Your task to perform on an android device: open app "Google Chat" Image 0: 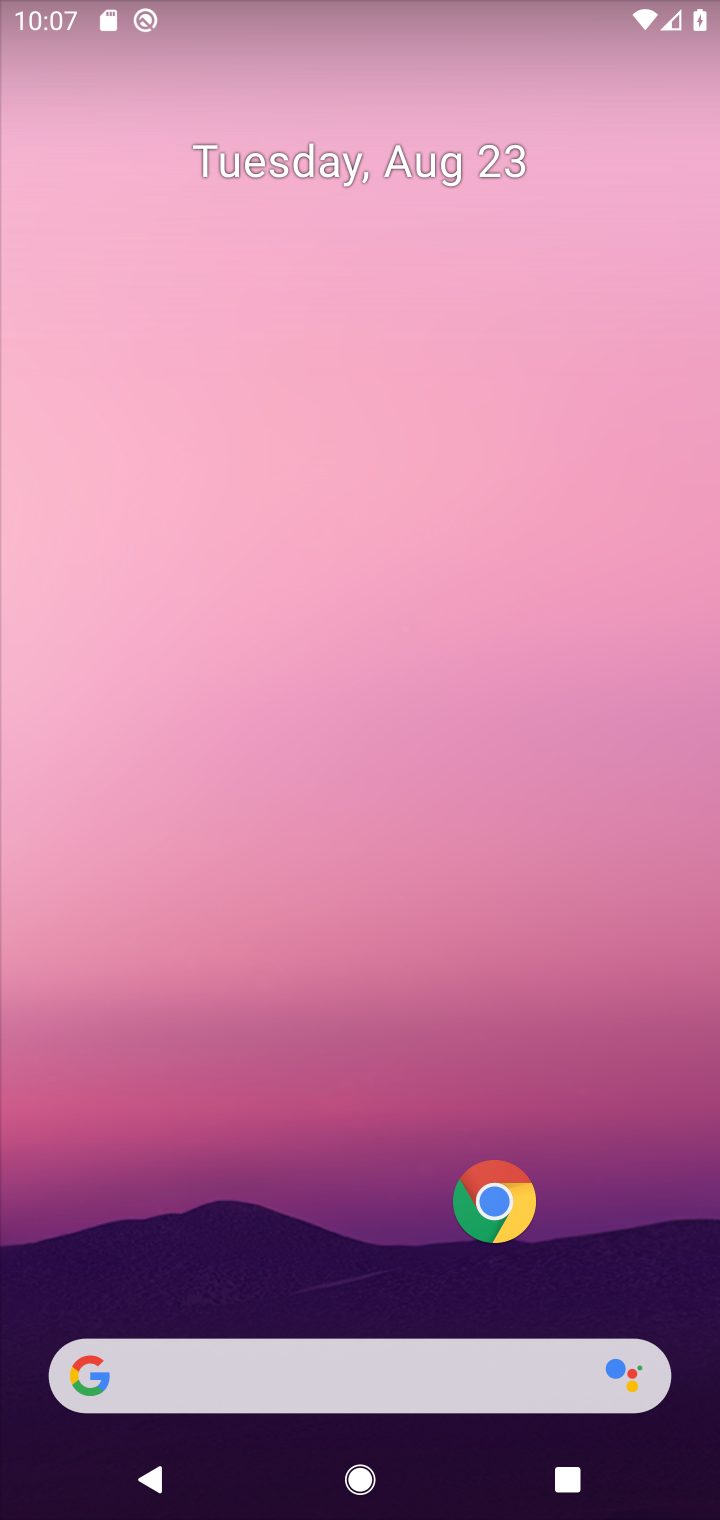
Step 0: drag from (211, 1181) to (314, 408)
Your task to perform on an android device: open app "Google Chat" Image 1: 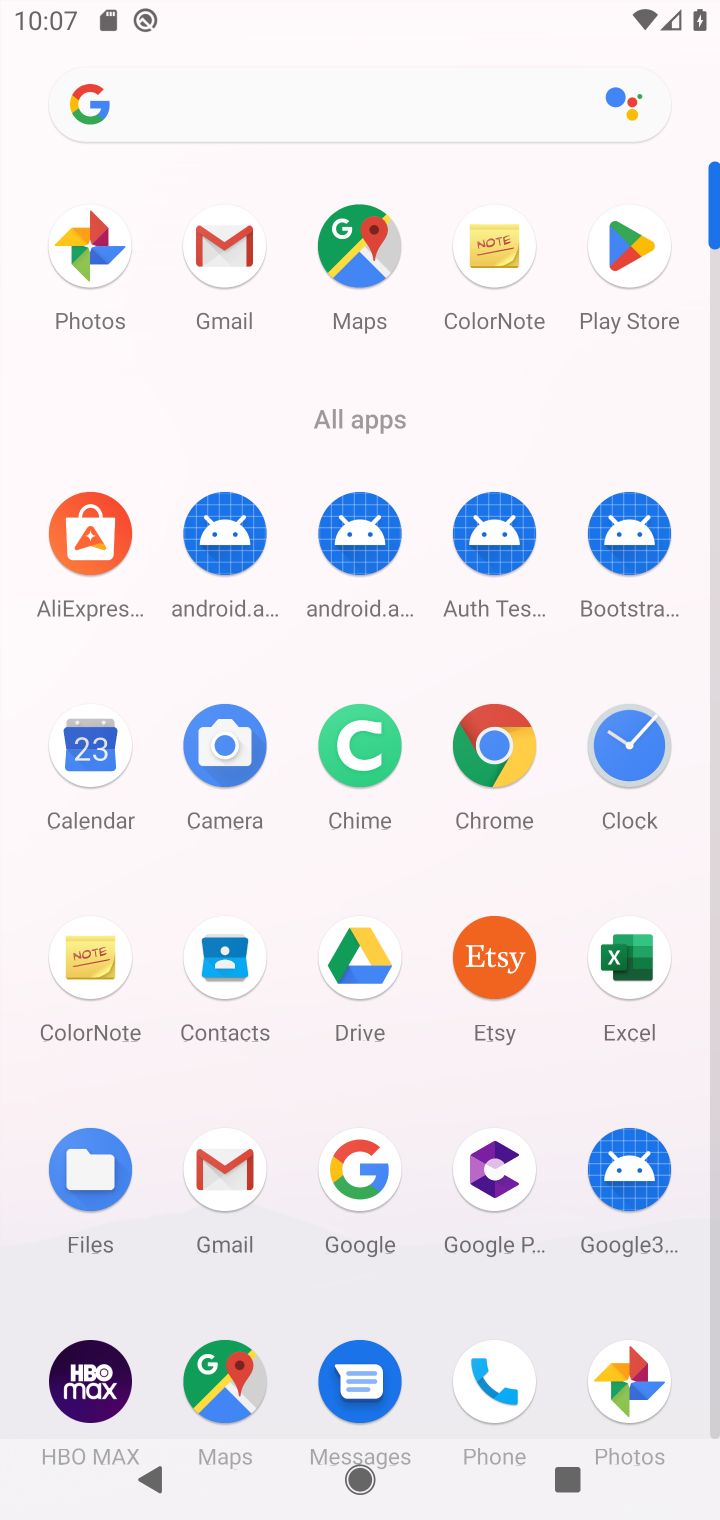
Step 1: click (608, 244)
Your task to perform on an android device: open app "Google Chat" Image 2: 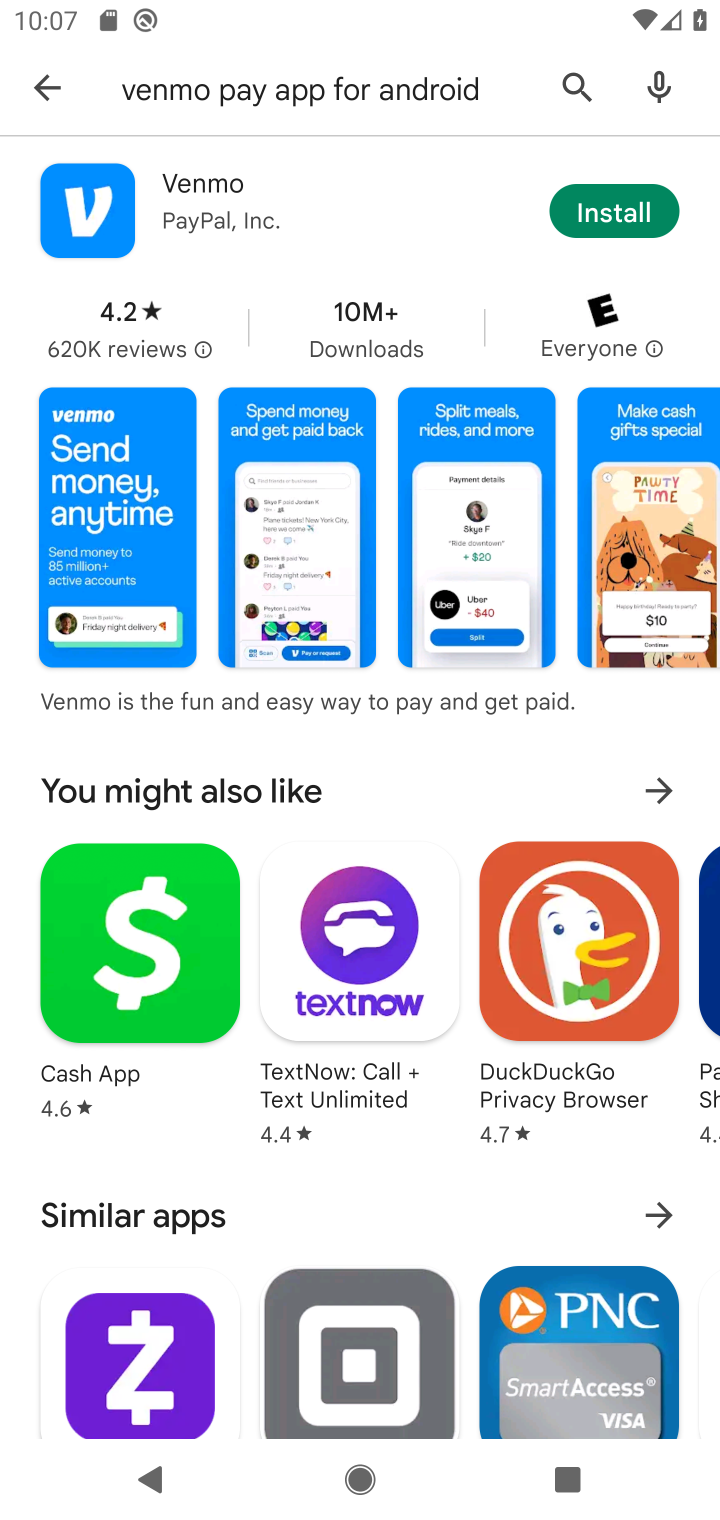
Step 2: click (33, 94)
Your task to perform on an android device: open app "Google Chat" Image 3: 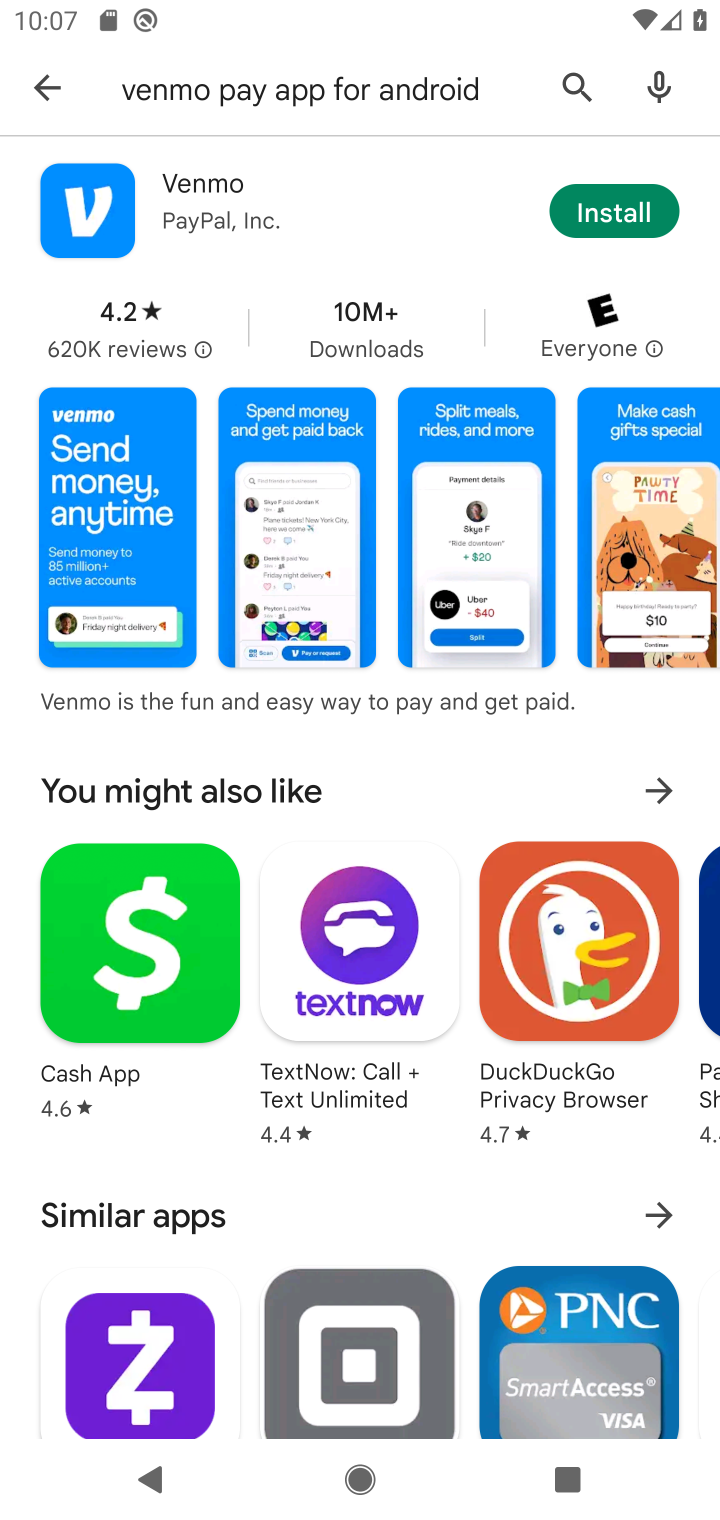
Step 3: click (75, 86)
Your task to perform on an android device: open app "Google Chat" Image 4: 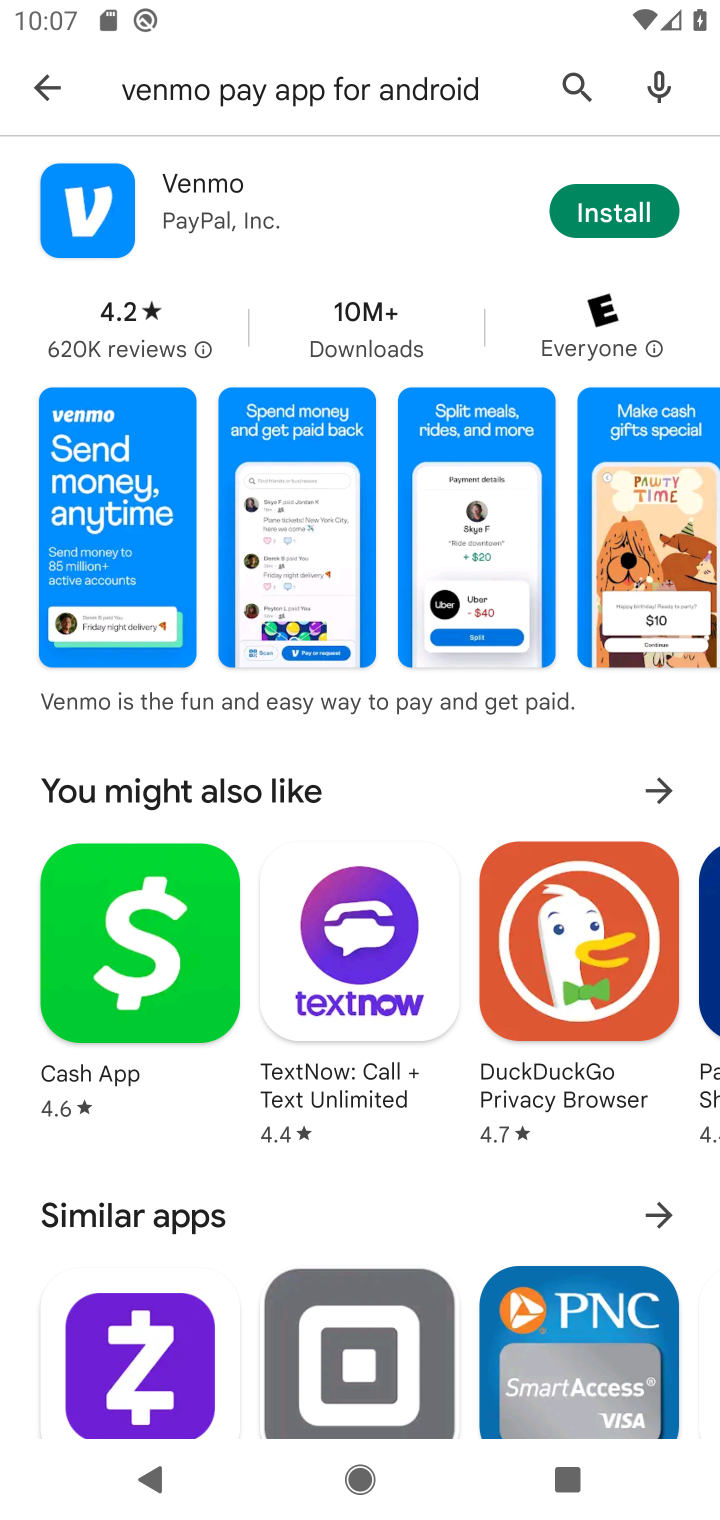
Step 4: click (75, 86)
Your task to perform on an android device: open app "Google Chat" Image 5: 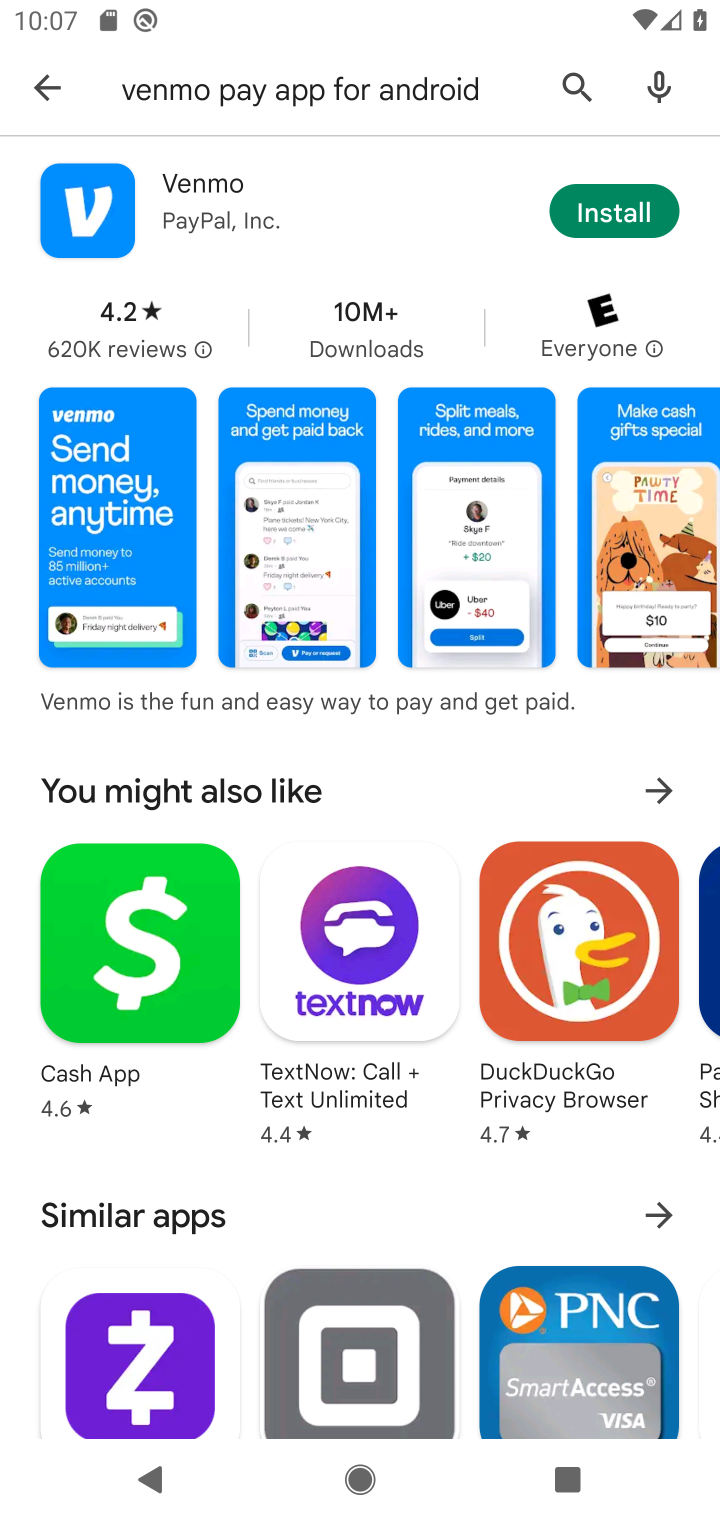
Step 5: click (586, 64)
Your task to perform on an android device: open app "Google Chat" Image 6: 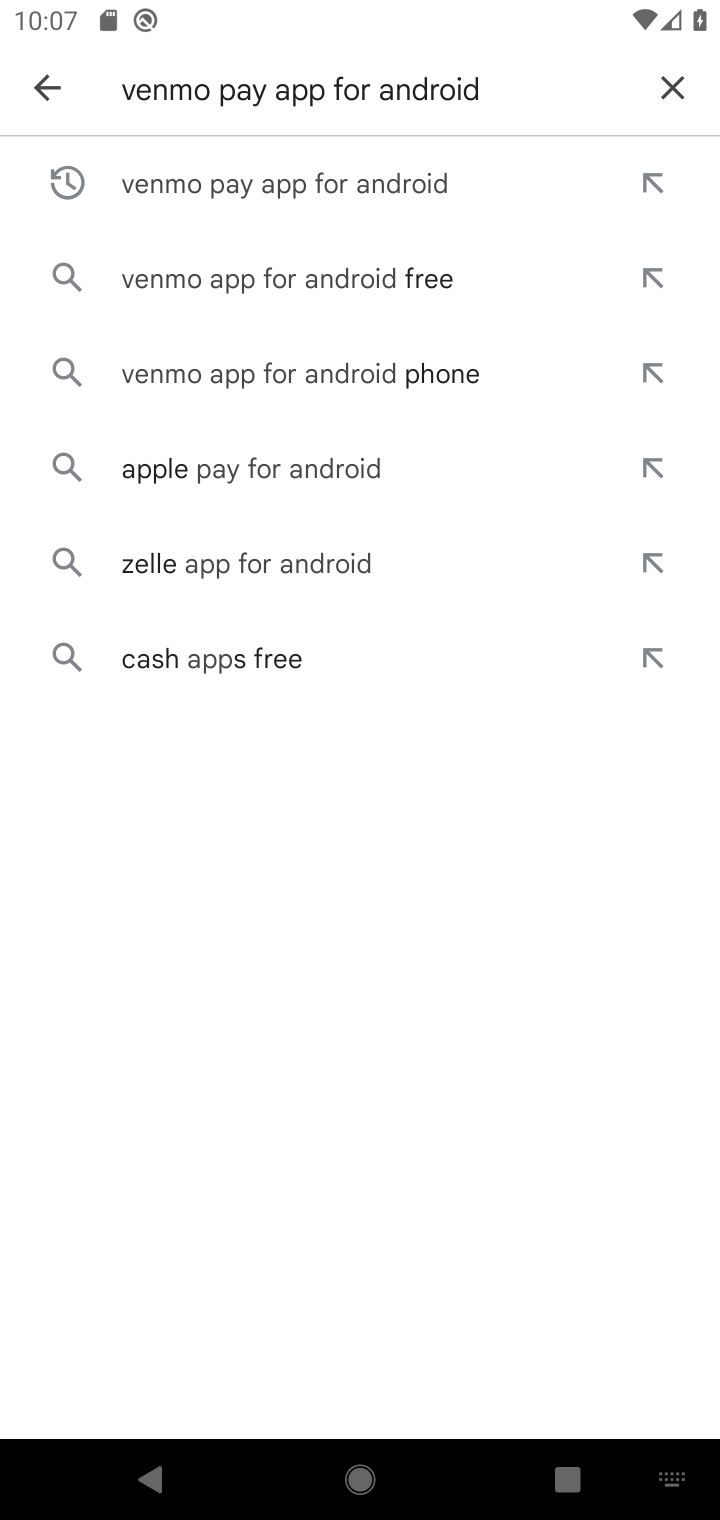
Step 6: click (690, 82)
Your task to perform on an android device: open app "Google Chat" Image 7: 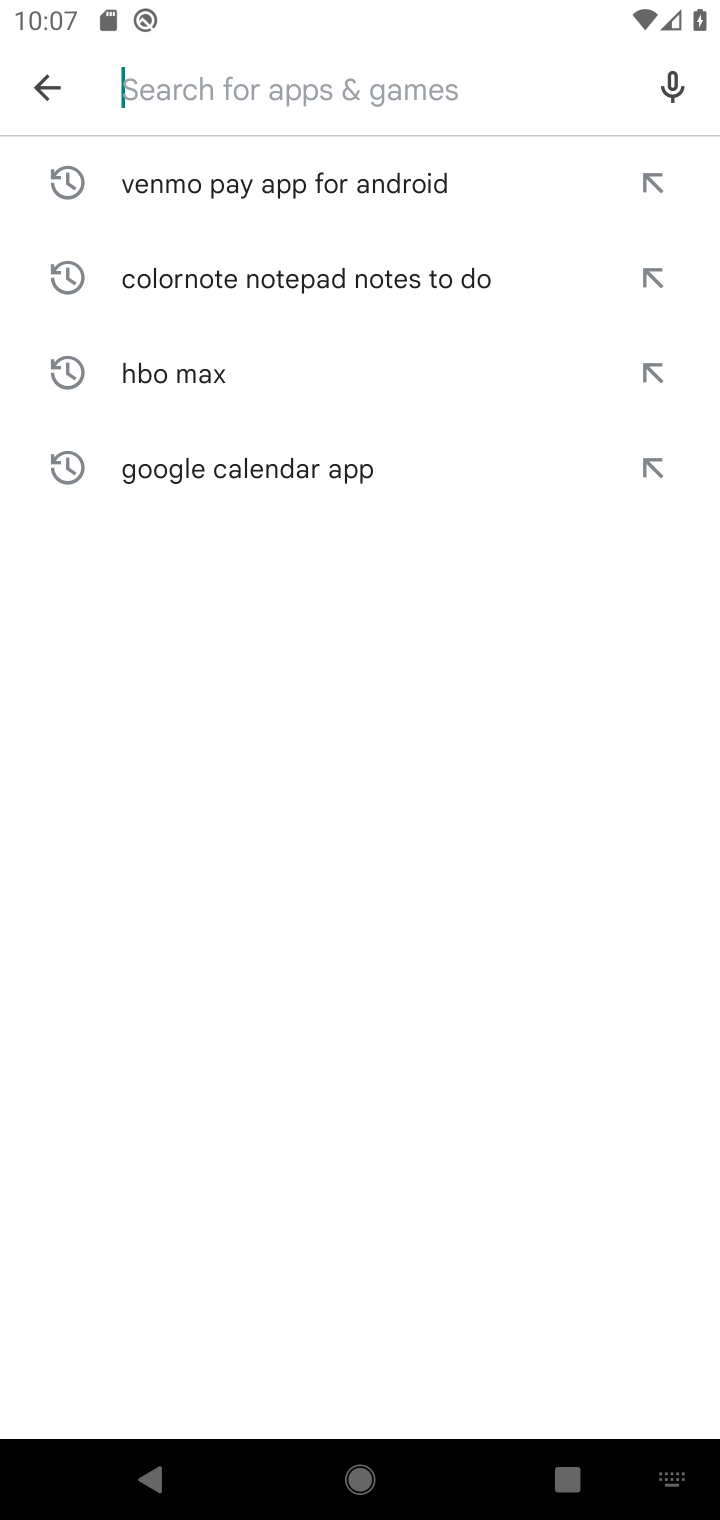
Step 7: click (331, 69)
Your task to perform on an android device: open app "Google Chat" Image 8: 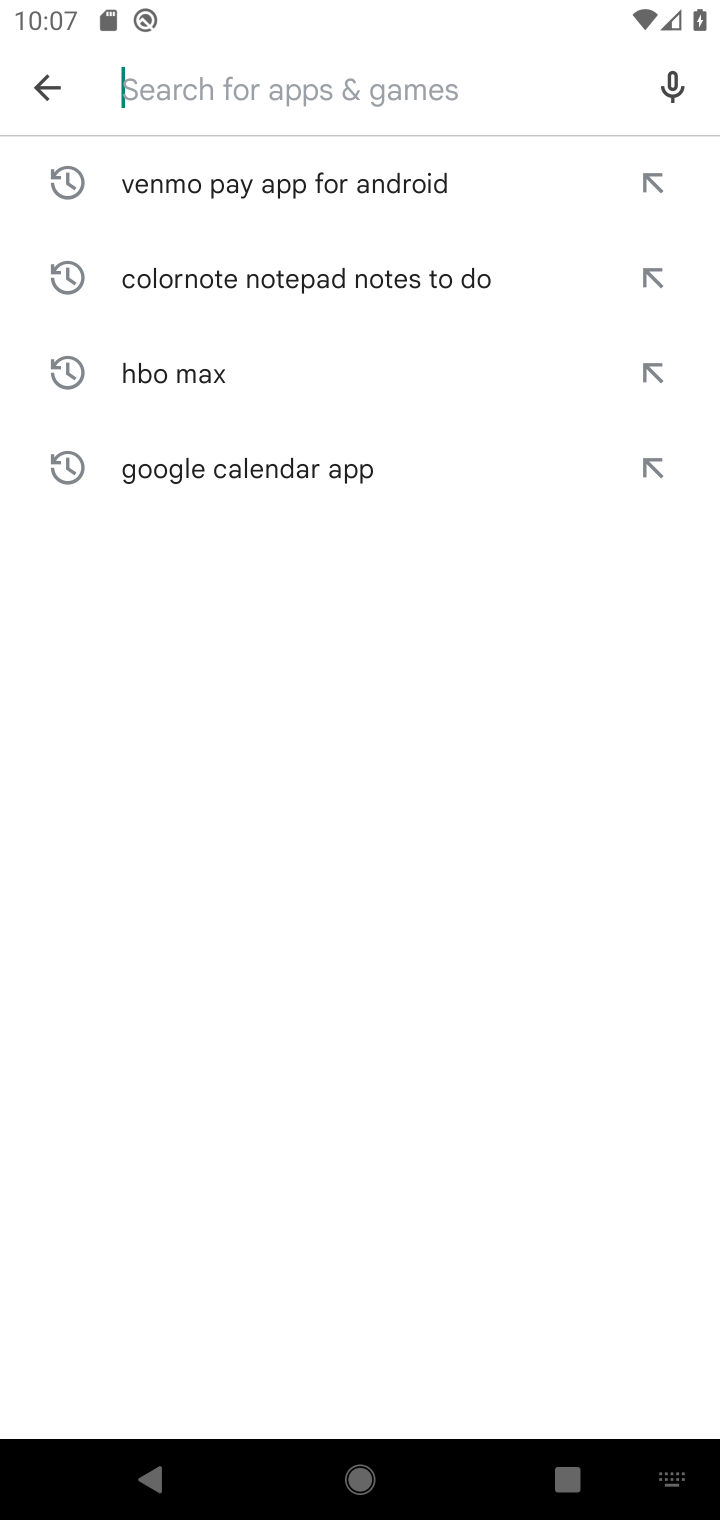
Step 8: type "Google Chat "
Your task to perform on an android device: open app "Google Chat" Image 9: 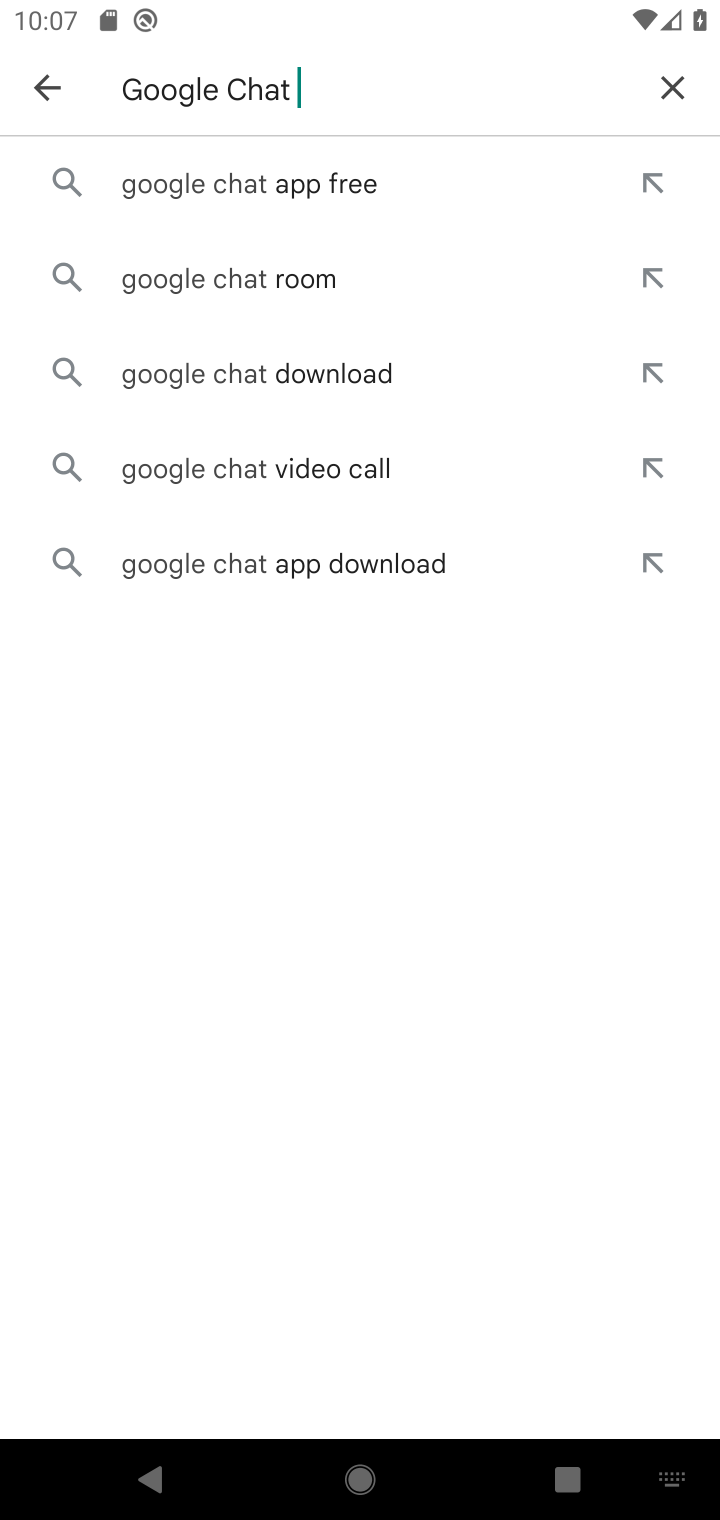
Step 9: click (192, 174)
Your task to perform on an android device: open app "Google Chat" Image 10: 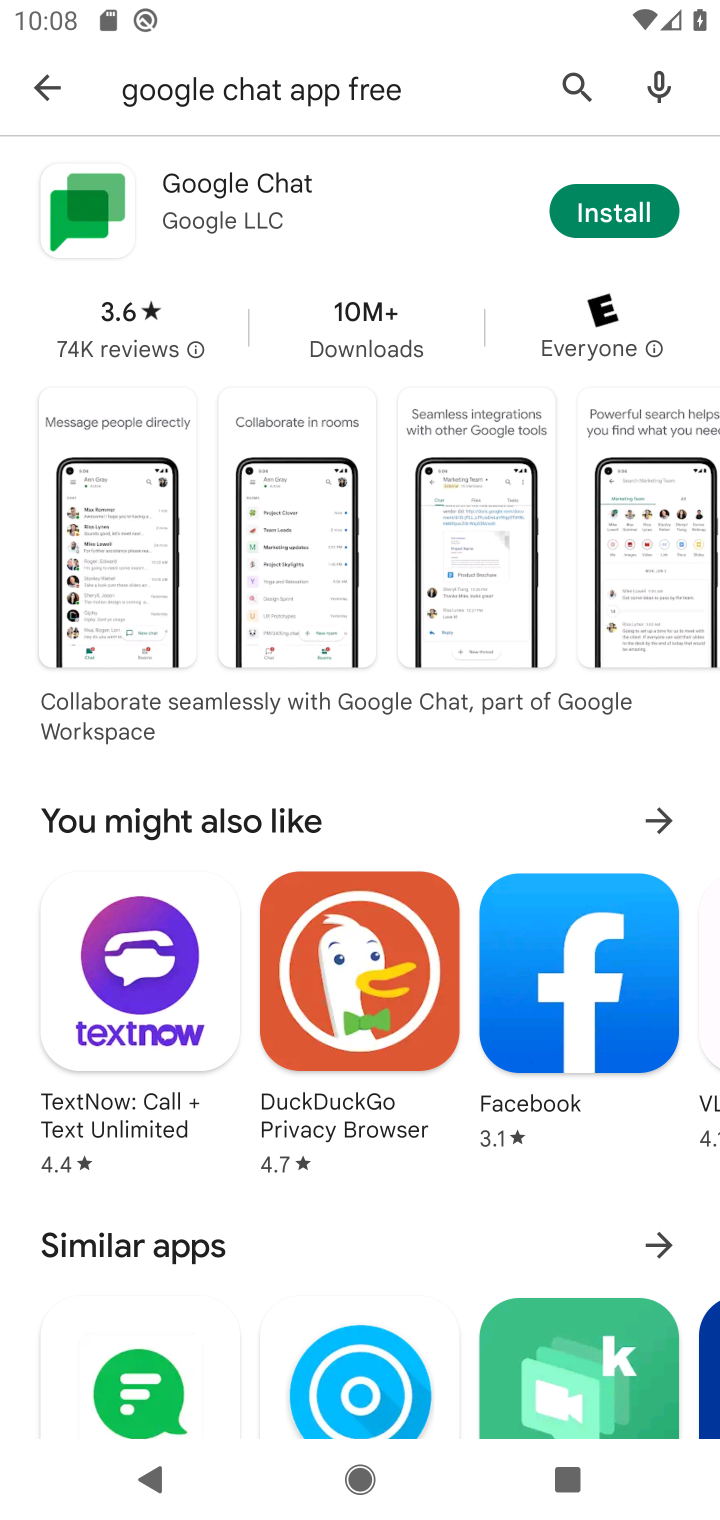
Step 10: click (594, 208)
Your task to perform on an android device: open app "Google Chat" Image 11: 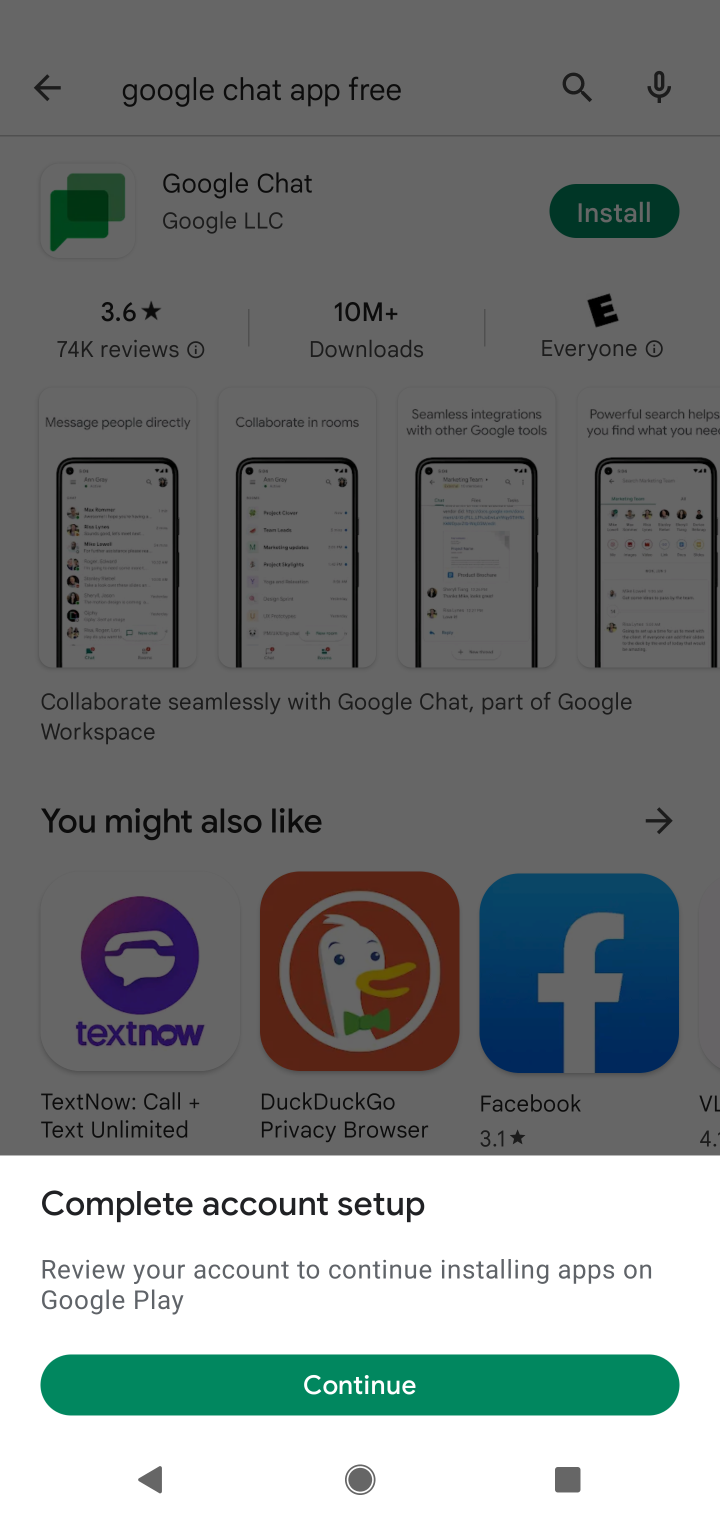
Step 11: task complete